Your task to perform on an android device: Show me the alarms in the clock app Image 0: 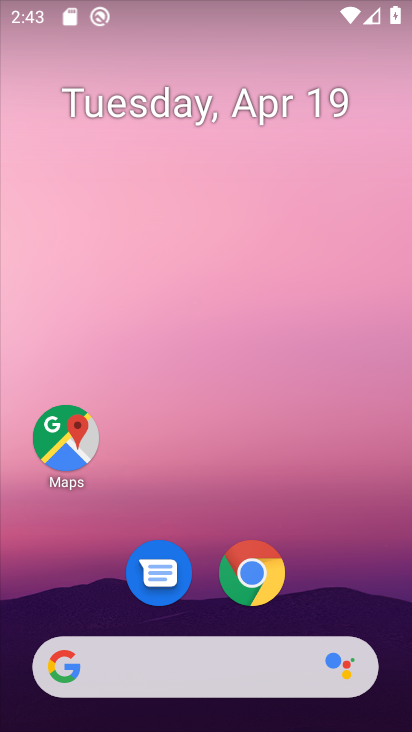
Step 0: drag from (145, 604) to (197, 313)
Your task to perform on an android device: Show me the alarms in the clock app Image 1: 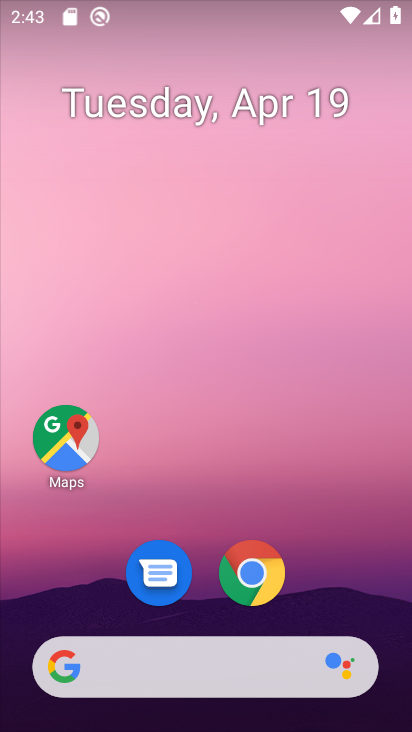
Step 1: drag from (188, 630) to (265, 211)
Your task to perform on an android device: Show me the alarms in the clock app Image 2: 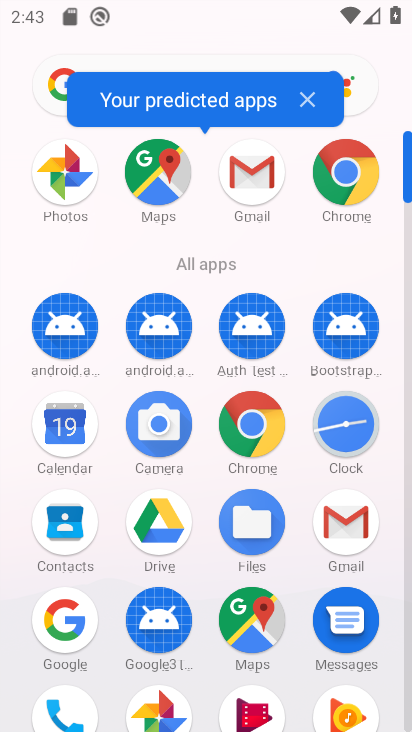
Step 2: click (339, 439)
Your task to perform on an android device: Show me the alarms in the clock app Image 3: 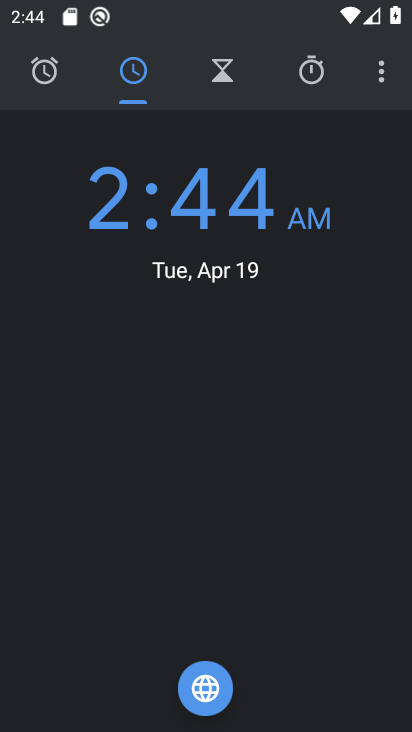
Step 3: click (52, 84)
Your task to perform on an android device: Show me the alarms in the clock app Image 4: 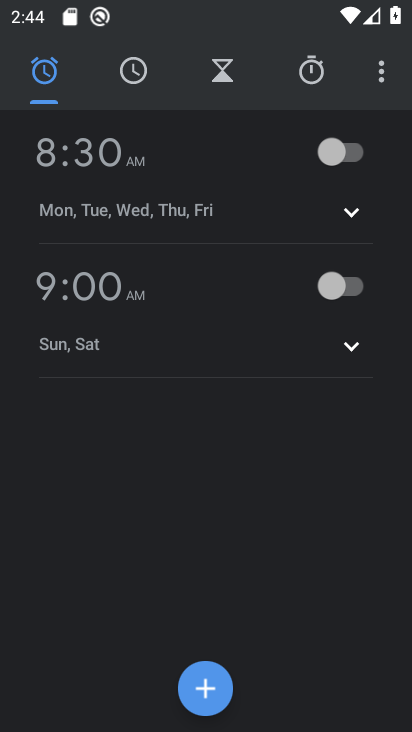
Step 4: task complete